Your task to perform on an android device: snooze an email in the gmail app Image 0: 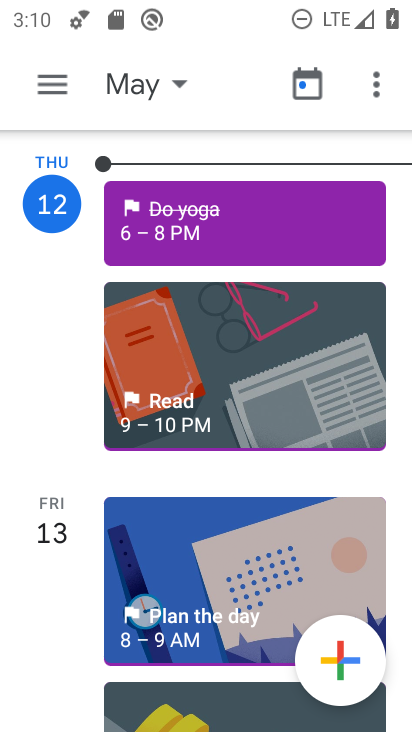
Step 0: press home button
Your task to perform on an android device: snooze an email in the gmail app Image 1: 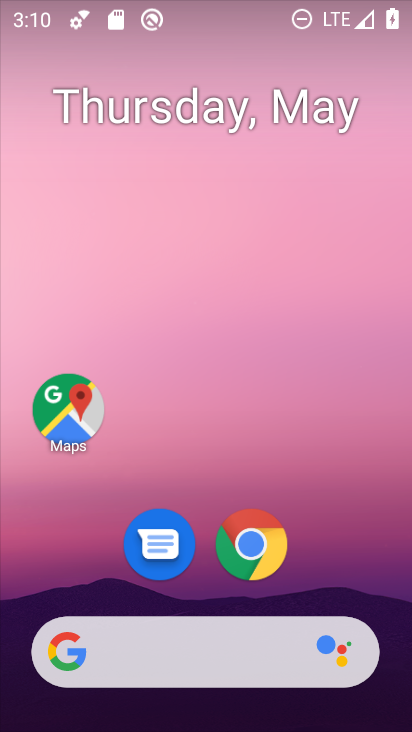
Step 1: drag from (62, 618) to (195, 197)
Your task to perform on an android device: snooze an email in the gmail app Image 2: 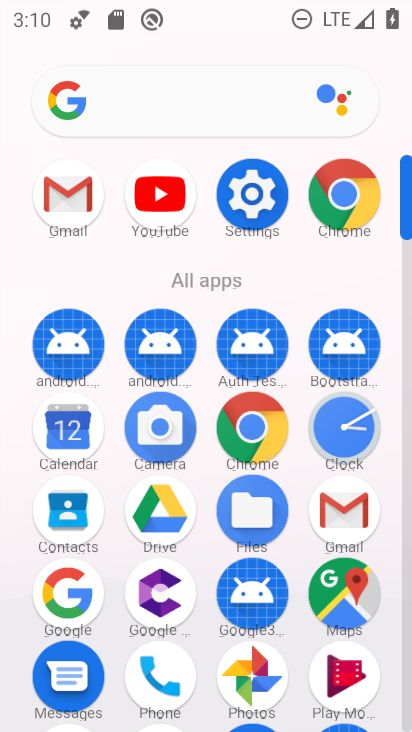
Step 2: click (379, 516)
Your task to perform on an android device: snooze an email in the gmail app Image 3: 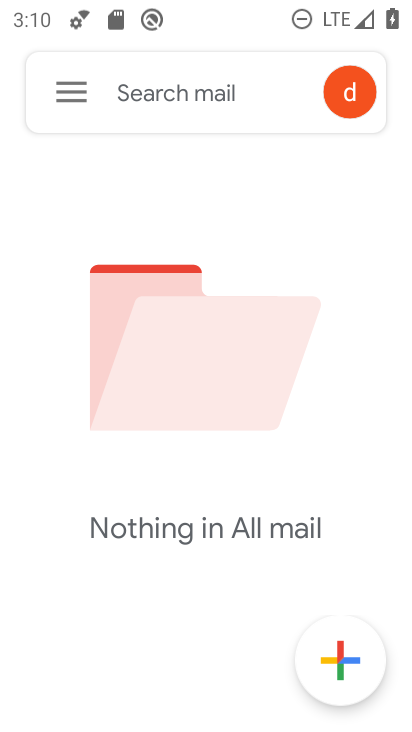
Step 3: task complete